Your task to perform on an android device: Go to sound settings Image 0: 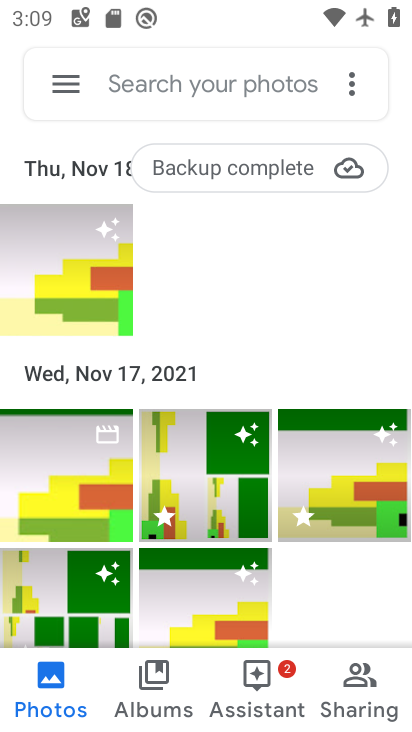
Step 0: press home button
Your task to perform on an android device: Go to sound settings Image 1: 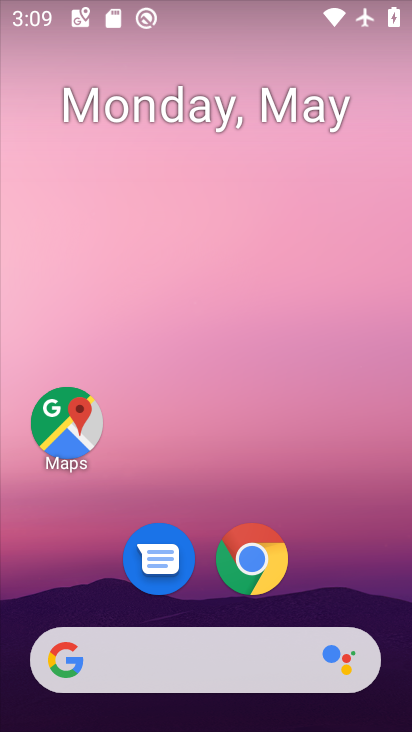
Step 1: drag from (299, 601) to (320, 23)
Your task to perform on an android device: Go to sound settings Image 2: 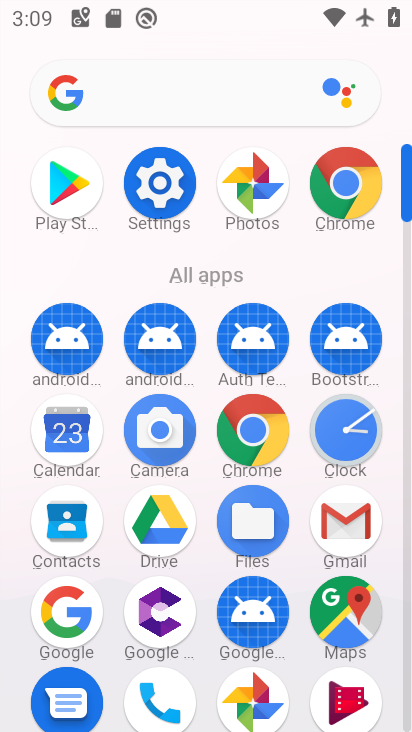
Step 2: click (153, 199)
Your task to perform on an android device: Go to sound settings Image 3: 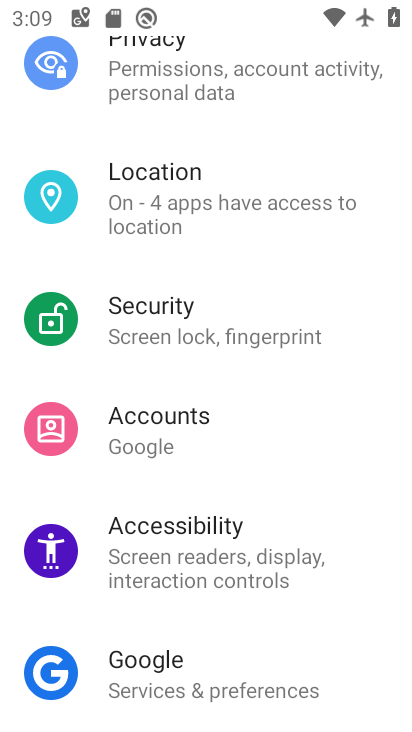
Step 3: drag from (202, 156) to (137, 598)
Your task to perform on an android device: Go to sound settings Image 4: 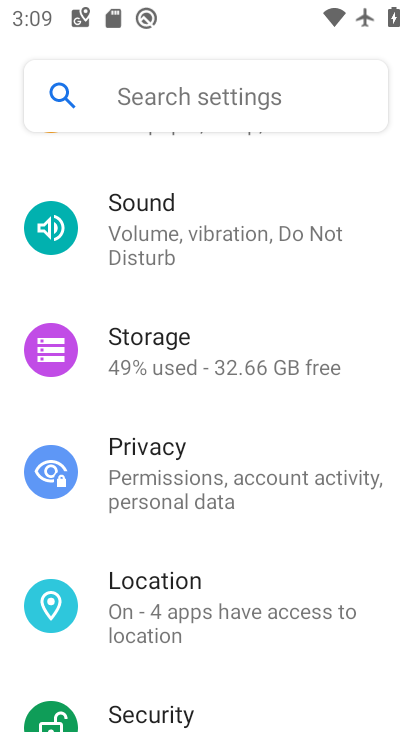
Step 4: click (153, 208)
Your task to perform on an android device: Go to sound settings Image 5: 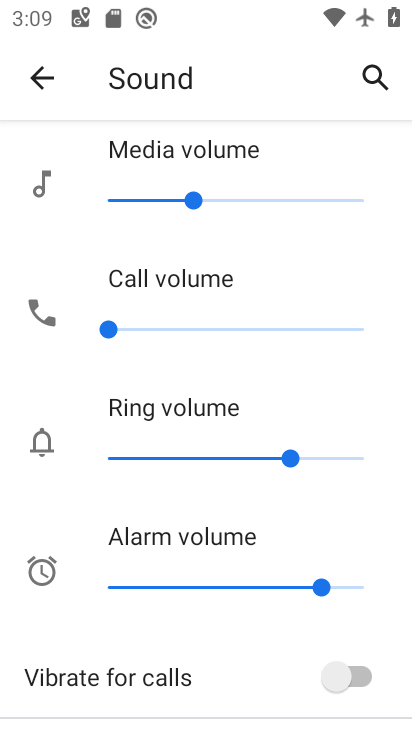
Step 5: task complete